Your task to perform on an android device: What's the news today? Image 0: 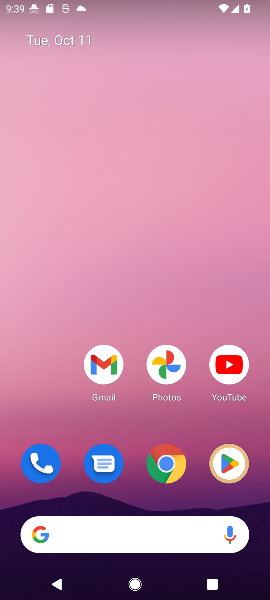
Step 0: drag from (104, 502) to (126, 236)
Your task to perform on an android device: What's the news today? Image 1: 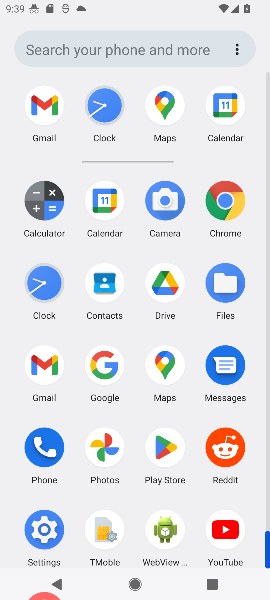
Step 1: click (110, 357)
Your task to perform on an android device: What's the news today? Image 2: 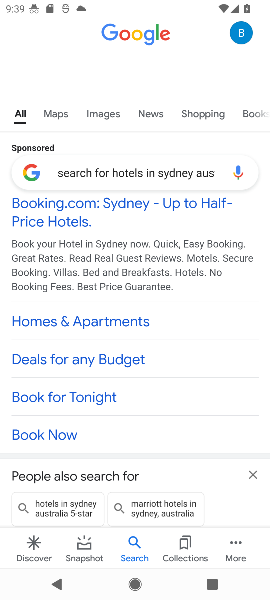
Step 2: click (152, 168)
Your task to perform on an android device: What's the news today? Image 3: 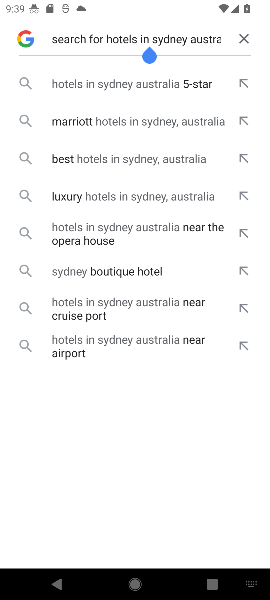
Step 3: click (237, 41)
Your task to perform on an android device: What's the news today? Image 4: 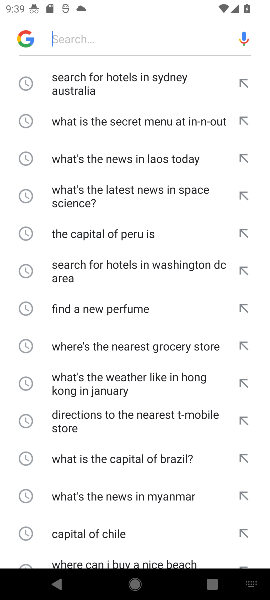
Step 4: click (125, 28)
Your task to perform on an android device: What's the news today? Image 5: 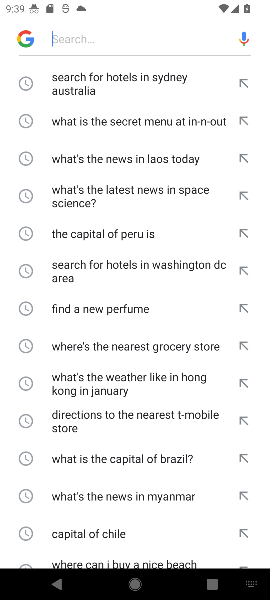
Step 5: type "What's the news today? "
Your task to perform on an android device: What's the news today? Image 6: 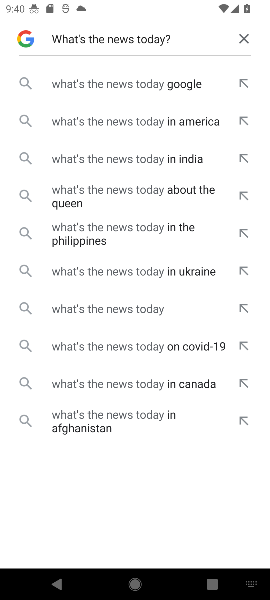
Step 6: click (107, 81)
Your task to perform on an android device: What's the news today? Image 7: 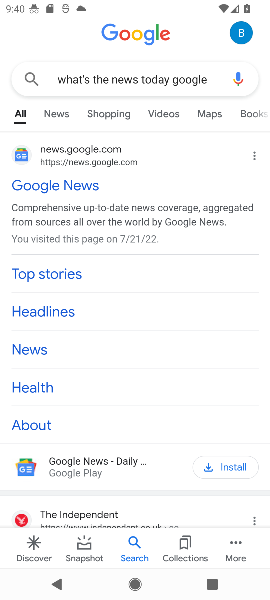
Step 7: click (86, 189)
Your task to perform on an android device: What's the news today? Image 8: 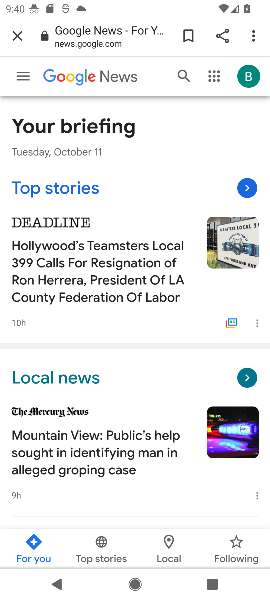
Step 8: task complete